Your task to perform on an android device: open device folders in google photos Image 0: 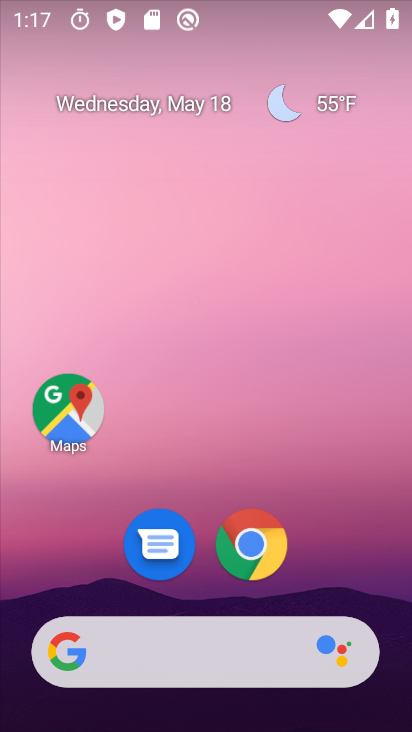
Step 0: drag from (367, 528) to (276, 68)
Your task to perform on an android device: open device folders in google photos Image 1: 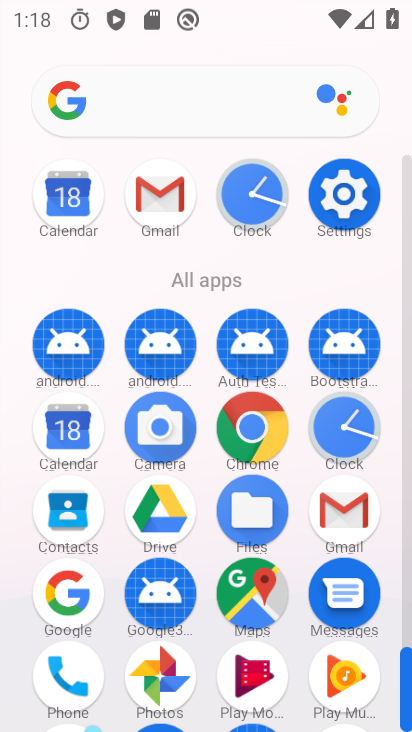
Step 1: click (164, 673)
Your task to perform on an android device: open device folders in google photos Image 2: 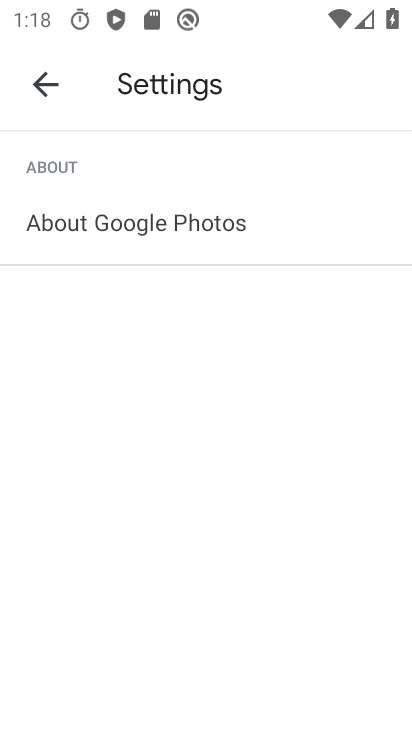
Step 2: press home button
Your task to perform on an android device: open device folders in google photos Image 3: 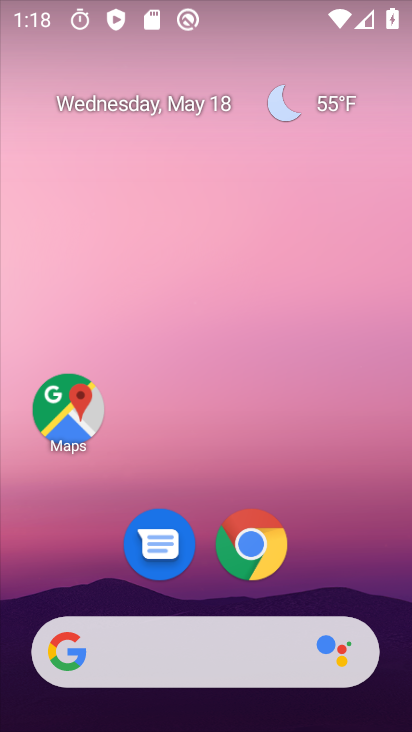
Step 3: drag from (324, 567) to (228, 263)
Your task to perform on an android device: open device folders in google photos Image 4: 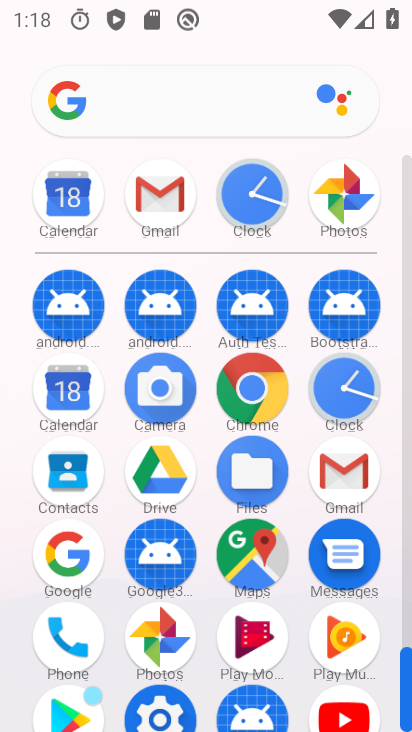
Step 4: click (166, 648)
Your task to perform on an android device: open device folders in google photos Image 5: 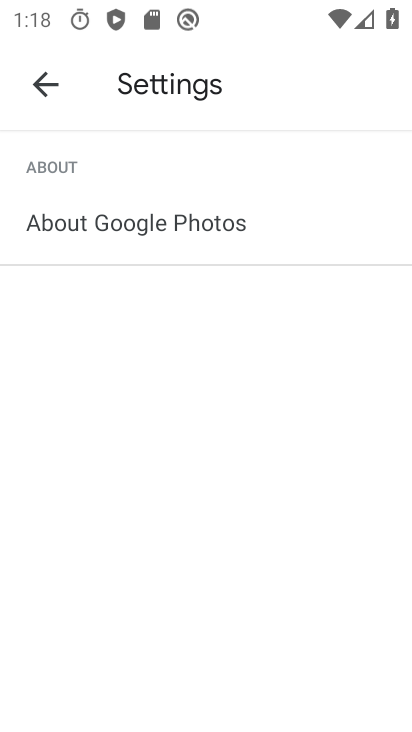
Step 5: click (46, 80)
Your task to perform on an android device: open device folders in google photos Image 6: 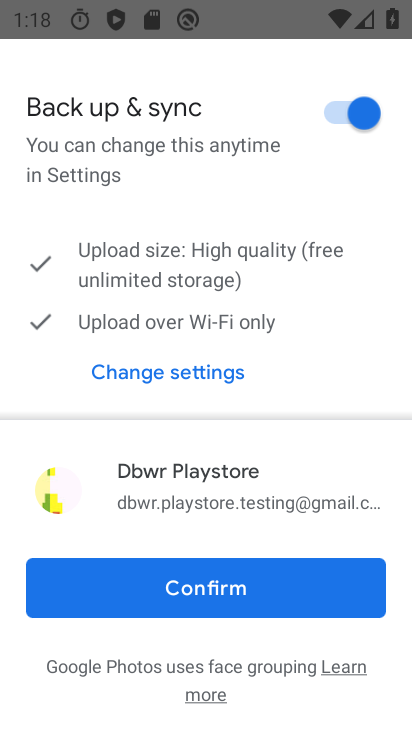
Step 6: click (238, 609)
Your task to perform on an android device: open device folders in google photos Image 7: 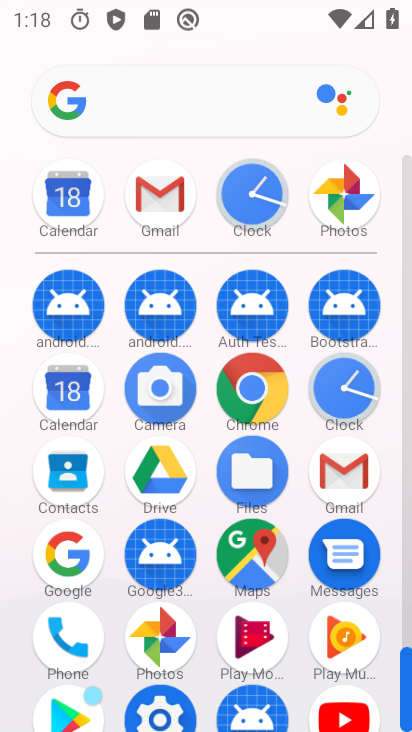
Step 7: click (172, 646)
Your task to perform on an android device: open device folders in google photos Image 8: 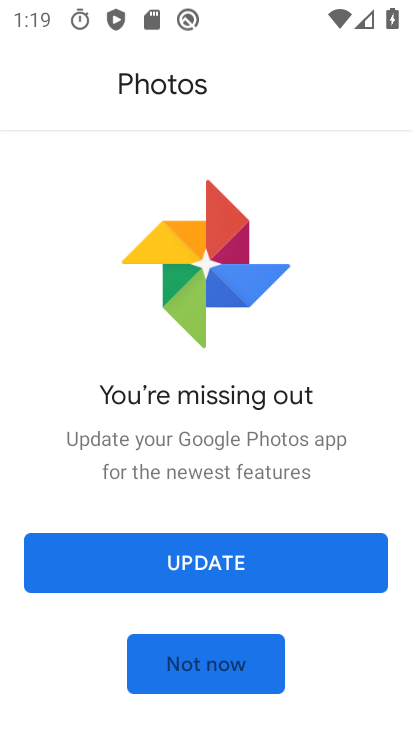
Step 8: click (301, 458)
Your task to perform on an android device: open device folders in google photos Image 9: 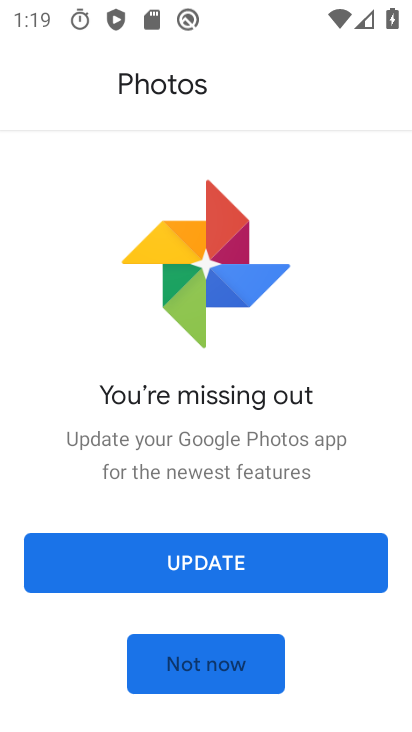
Step 9: click (286, 550)
Your task to perform on an android device: open device folders in google photos Image 10: 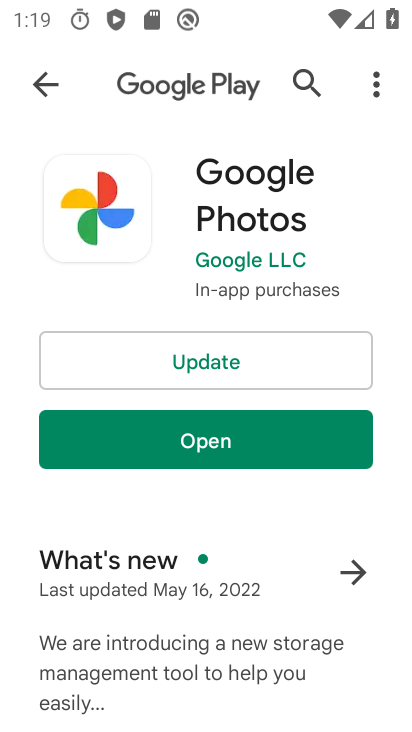
Step 10: click (251, 364)
Your task to perform on an android device: open device folders in google photos Image 11: 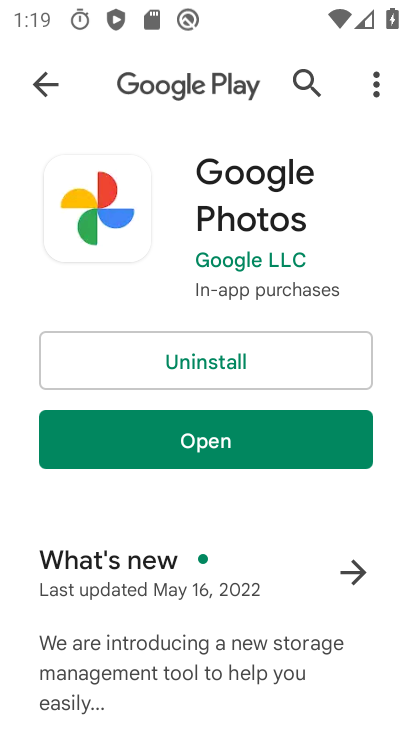
Step 11: click (280, 451)
Your task to perform on an android device: open device folders in google photos Image 12: 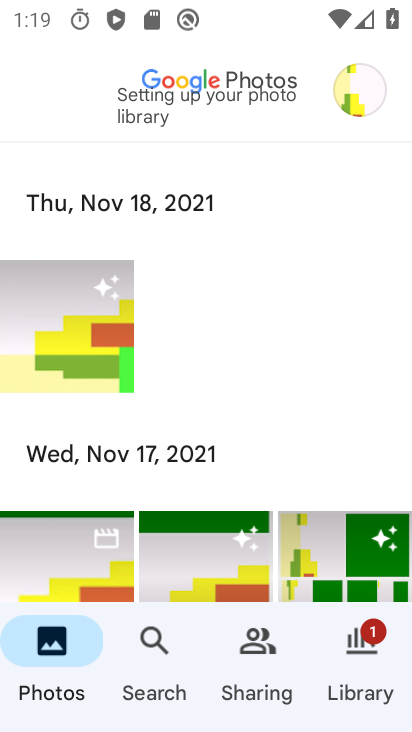
Step 12: click (153, 642)
Your task to perform on an android device: open device folders in google photos Image 13: 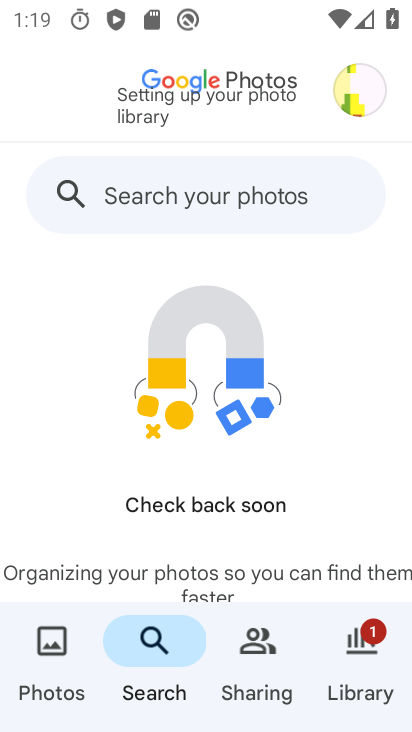
Step 13: click (273, 201)
Your task to perform on an android device: open device folders in google photos Image 14: 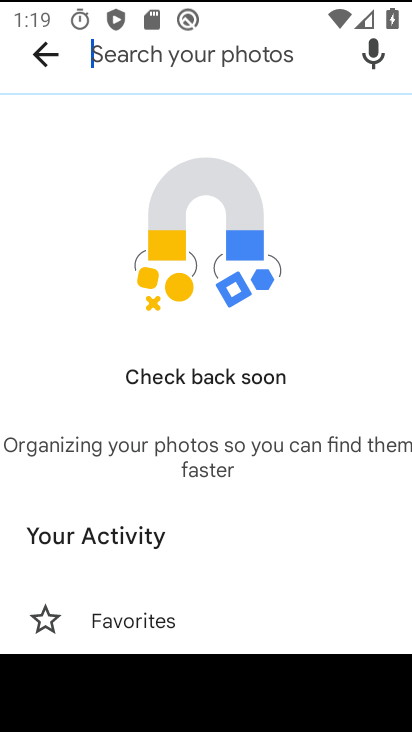
Step 14: type "device"
Your task to perform on an android device: open device folders in google photos Image 15: 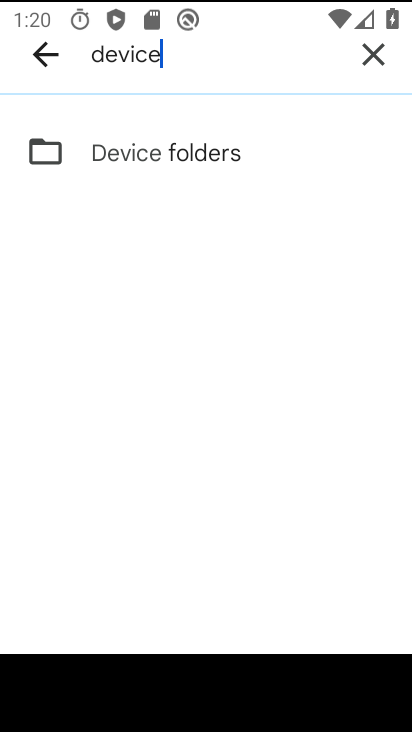
Step 15: click (174, 160)
Your task to perform on an android device: open device folders in google photos Image 16: 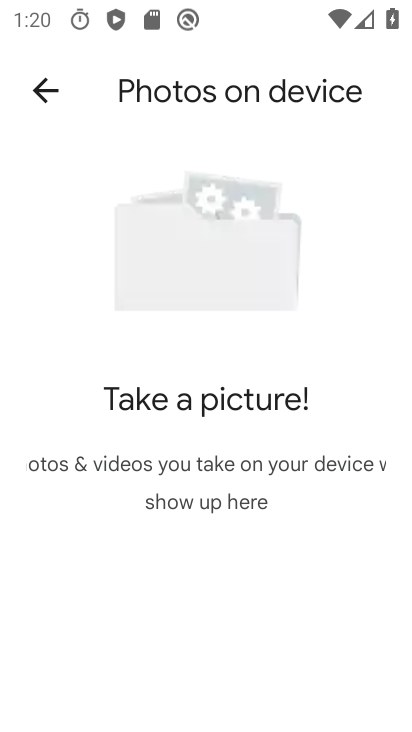
Step 16: task complete